Your task to perform on an android device: When is my next meeting? Image 0: 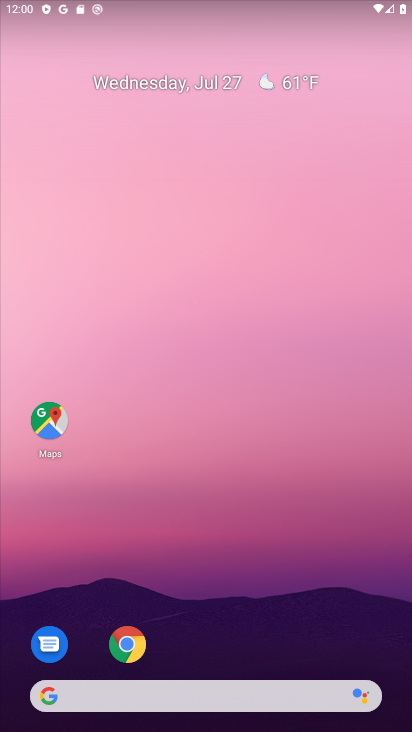
Step 0: drag from (212, 581) to (263, 344)
Your task to perform on an android device: When is my next meeting? Image 1: 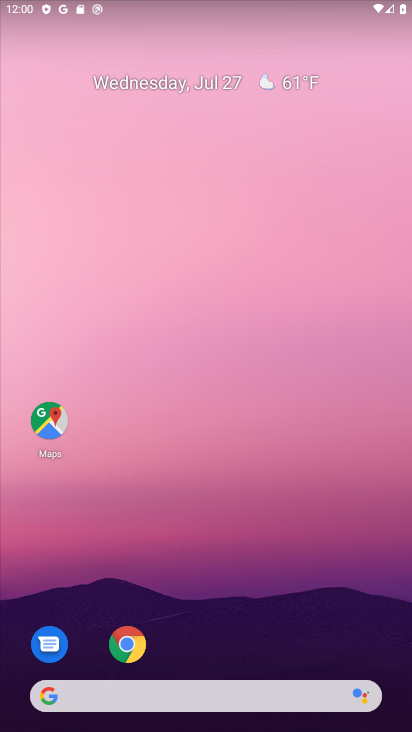
Step 1: drag from (200, 625) to (292, 202)
Your task to perform on an android device: When is my next meeting? Image 2: 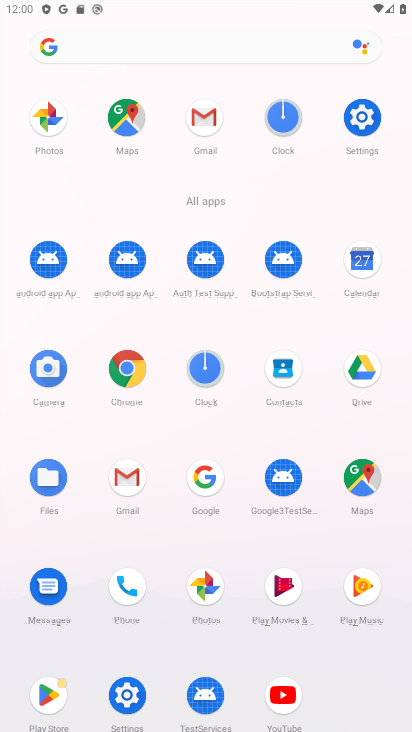
Step 2: click (362, 247)
Your task to perform on an android device: When is my next meeting? Image 3: 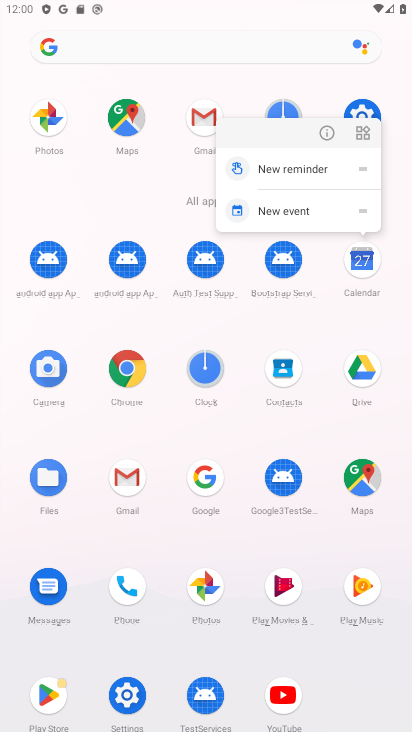
Step 3: click (328, 140)
Your task to perform on an android device: When is my next meeting? Image 4: 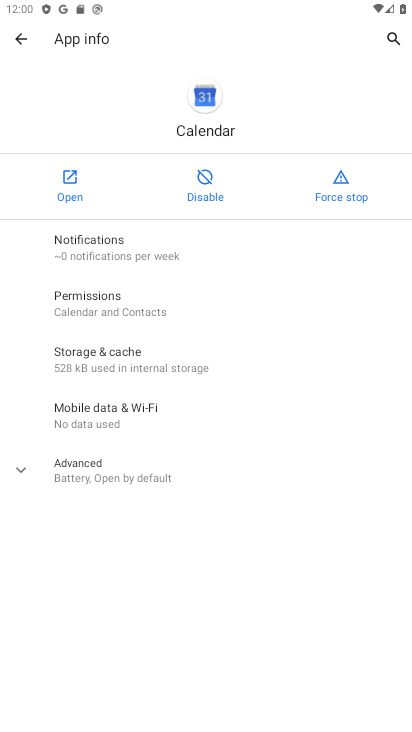
Step 4: click (73, 182)
Your task to perform on an android device: When is my next meeting? Image 5: 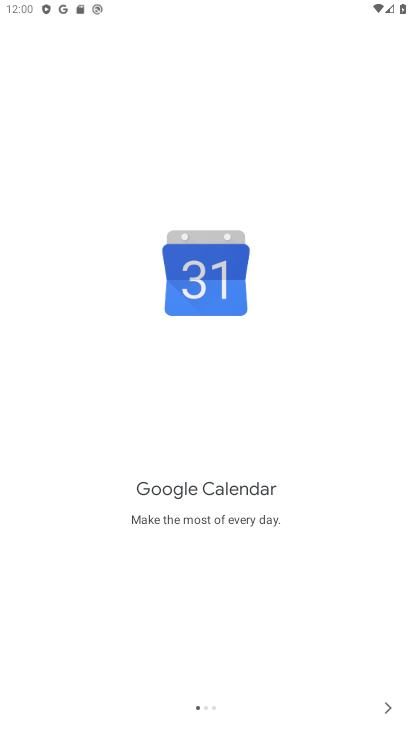
Step 5: click (387, 703)
Your task to perform on an android device: When is my next meeting? Image 6: 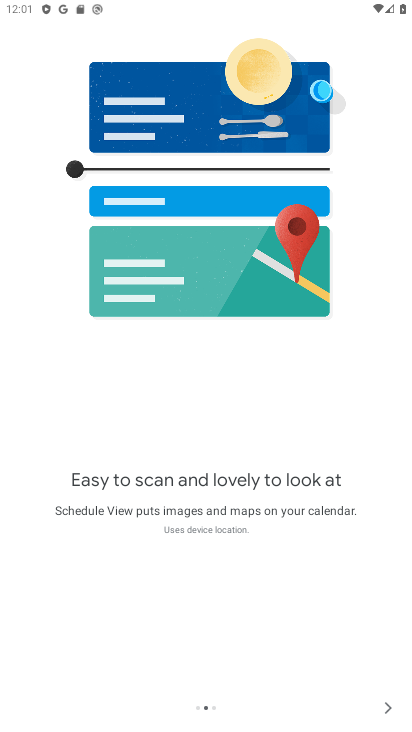
Step 6: drag from (256, 392) to (349, 132)
Your task to perform on an android device: When is my next meeting? Image 7: 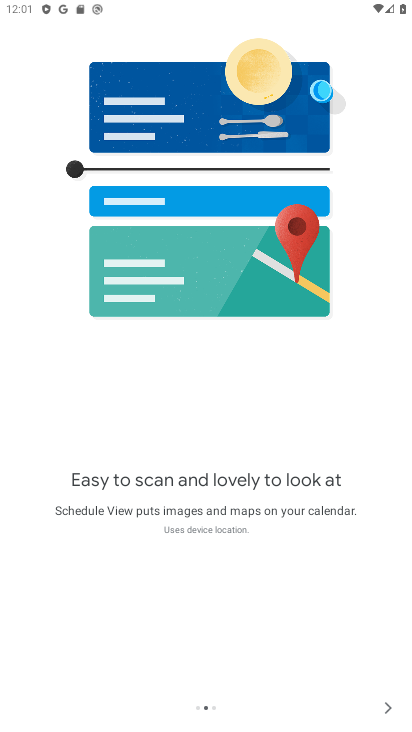
Step 7: click (386, 708)
Your task to perform on an android device: When is my next meeting? Image 8: 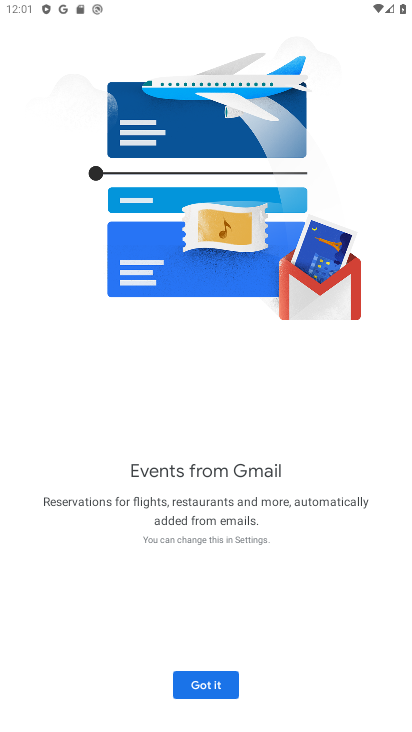
Step 8: click (200, 679)
Your task to perform on an android device: When is my next meeting? Image 9: 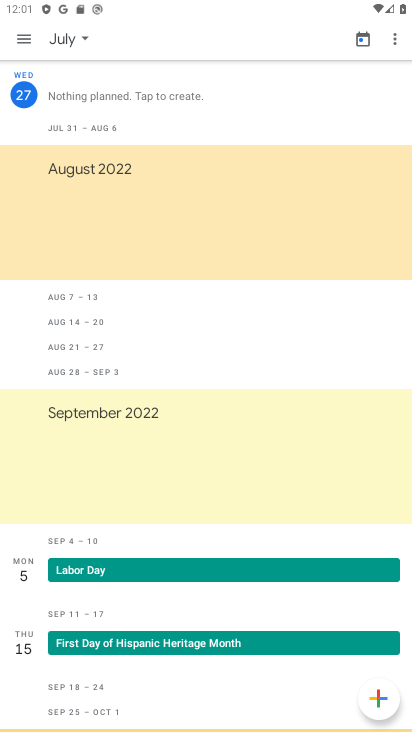
Step 9: click (70, 36)
Your task to perform on an android device: When is my next meeting? Image 10: 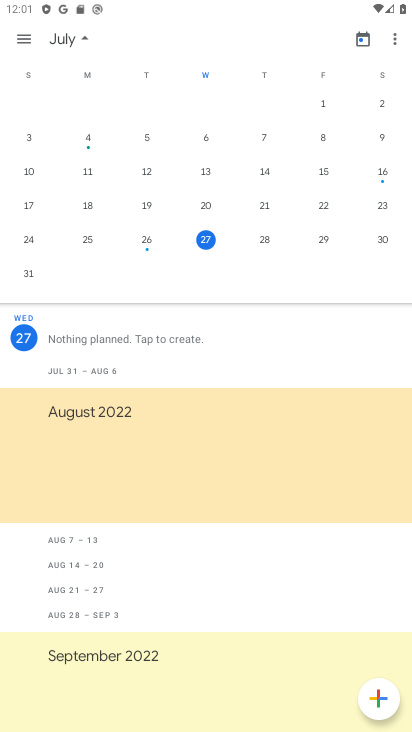
Step 10: click (267, 235)
Your task to perform on an android device: When is my next meeting? Image 11: 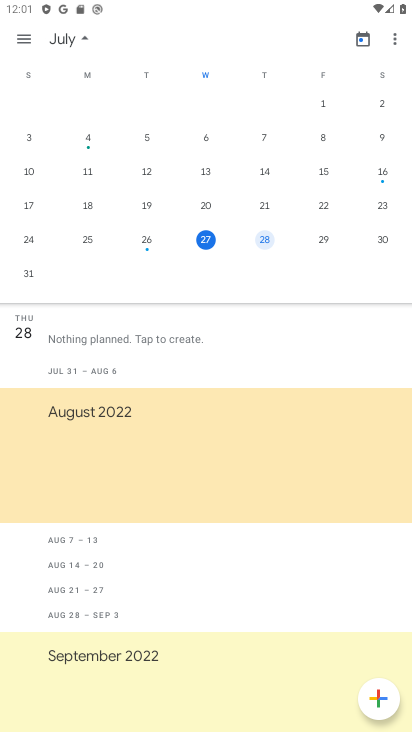
Step 11: click (203, 242)
Your task to perform on an android device: When is my next meeting? Image 12: 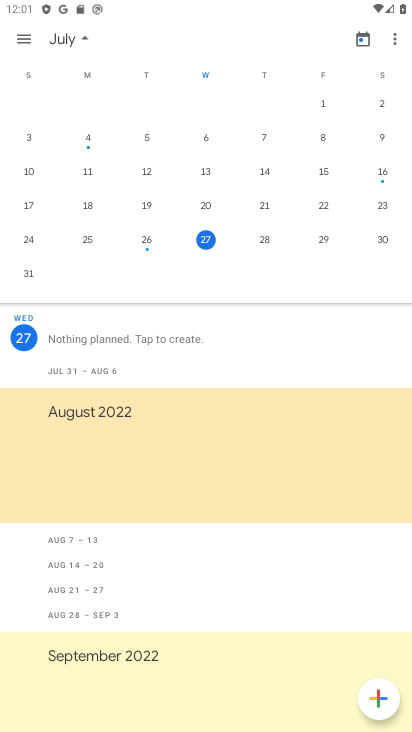
Step 12: task complete